Your task to perform on an android device: turn on bluetooth scan Image 0: 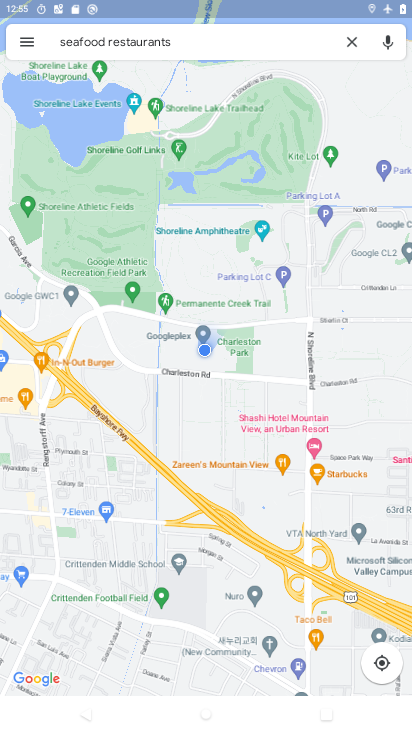
Step 0: press back button
Your task to perform on an android device: turn on bluetooth scan Image 1: 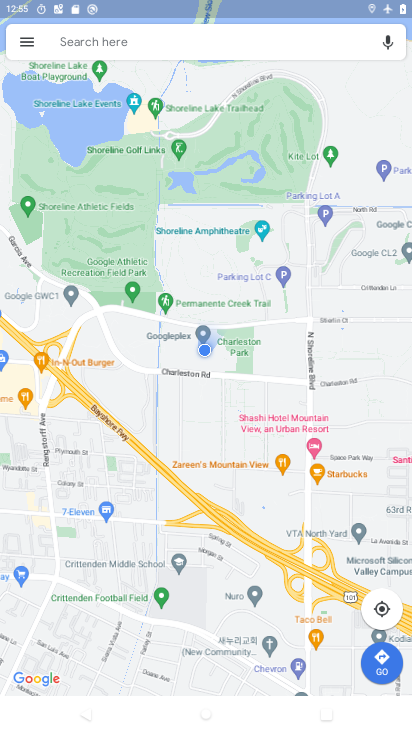
Step 1: press back button
Your task to perform on an android device: turn on bluetooth scan Image 2: 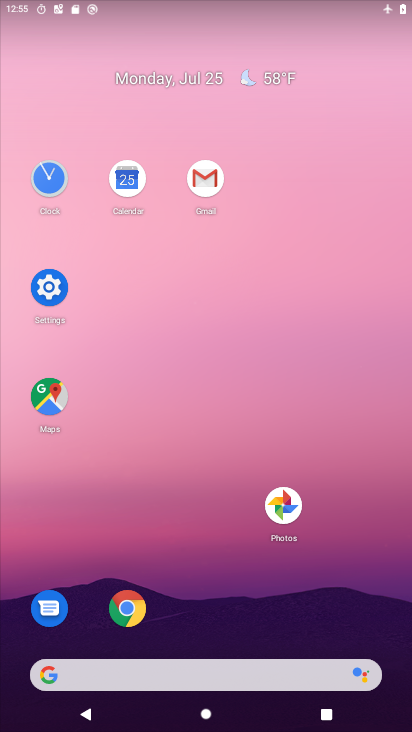
Step 2: click (59, 287)
Your task to perform on an android device: turn on bluetooth scan Image 3: 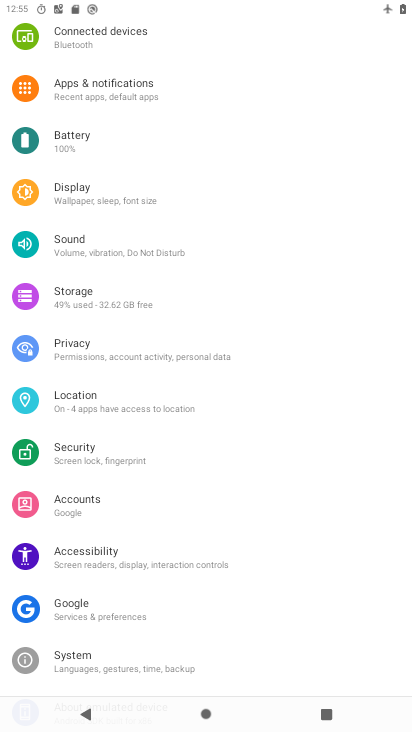
Step 3: click (128, 422)
Your task to perform on an android device: turn on bluetooth scan Image 4: 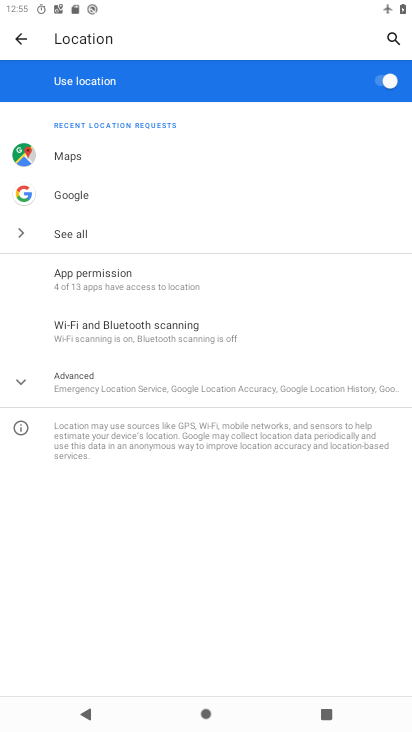
Step 4: click (174, 333)
Your task to perform on an android device: turn on bluetooth scan Image 5: 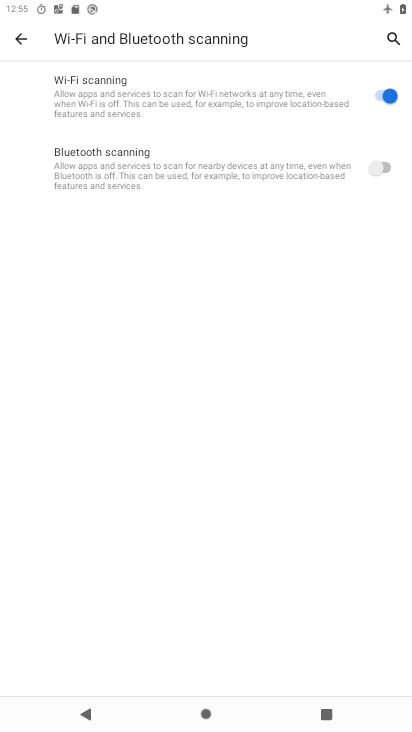
Step 5: click (387, 164)
Your task to perform on an android device: turn on bluetooth scan Image 6: 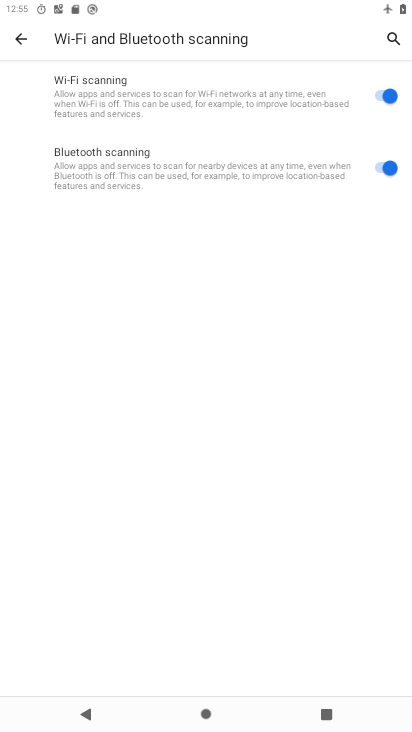
Step 6: task complete